Your task to perform on an android device: turn on improve location accuracy Image 0: 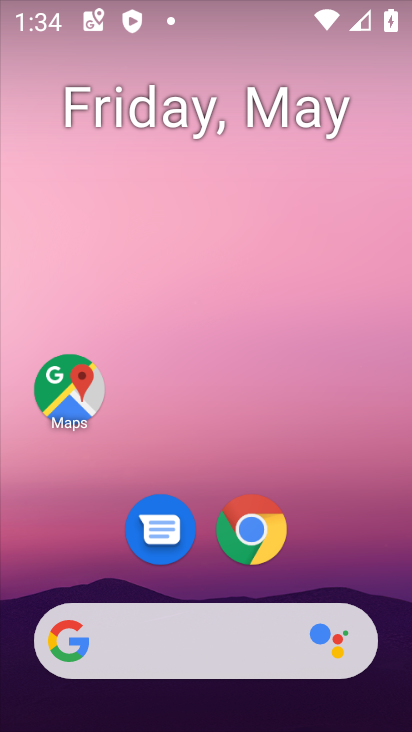
Step 0: drag from (363, 555) to (88, 35)
Your task to perform on an android device: turn on improve location accuracy Image 1: 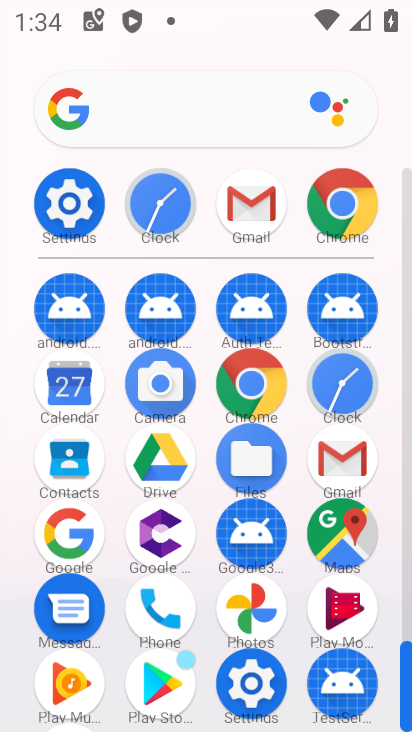
Step 1: click (61, 186)
Your task to perform on an android device: turn on improve location accuracy Image 2: 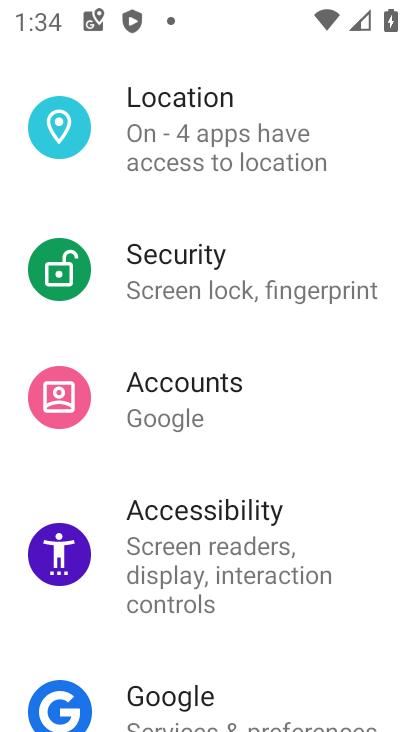
Step 2: drag from (247, 597) to (207, 356)
Your task to perform on an android device: turn on improve location accuracy Image 3: 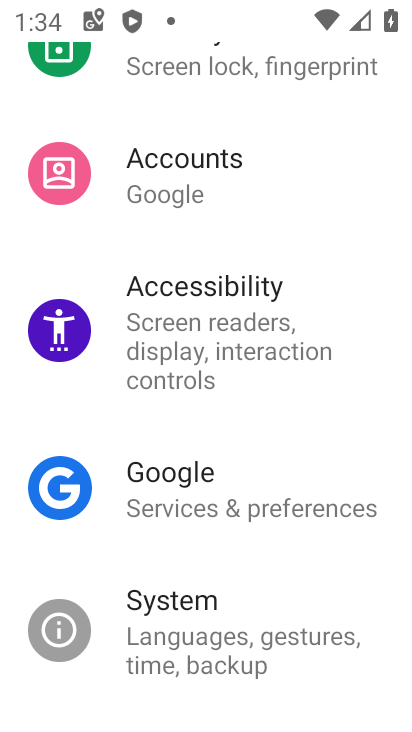
Step 3: drag from (220, 578) to (189, 265)
Your task to perform on an android device: turn on improve location accuracy Image 4: 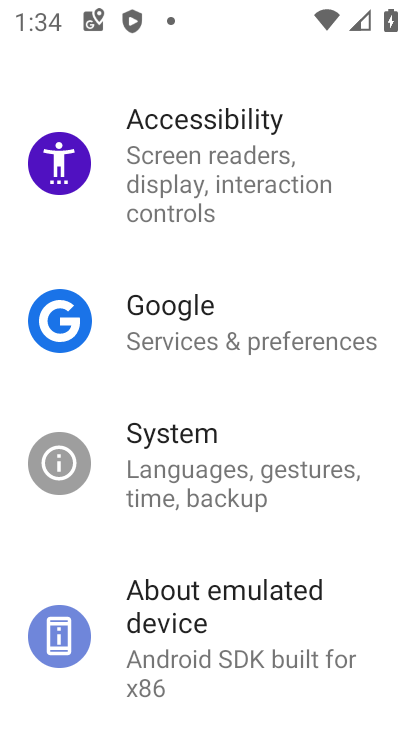
Step 4: drag from (189, 265) to (218, 728)
Your task to perform on an android device: turn on improve location accuracy Image 5: 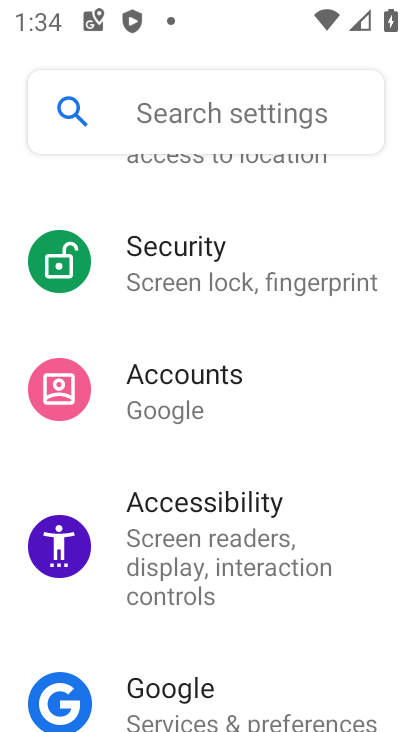
Step 5: drag from (192, 352) to (188, 728)
Your task to perform on an android device: turn on improve location accuracy Image 6: 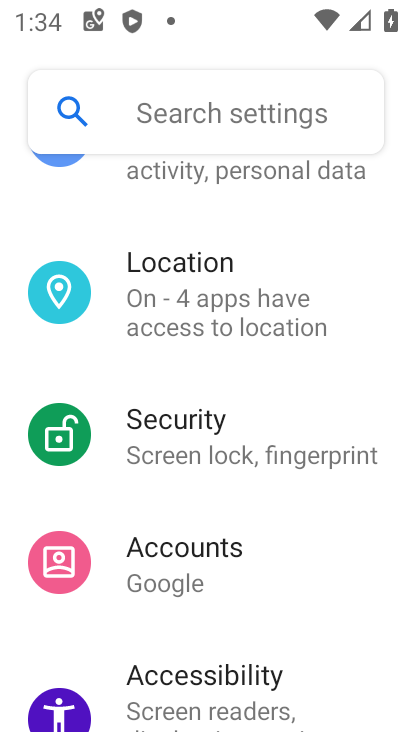
Step 6: click (217, 360)
Your task to perform on an android device: turn on improve location accuracy Image 7: 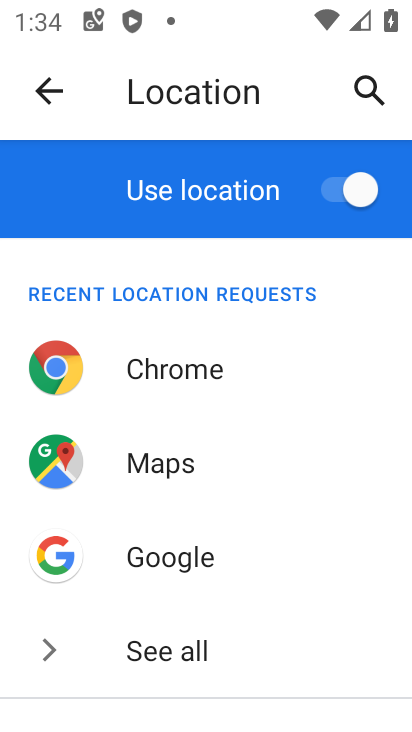
Step 7: drag from (170, 580) to (170, 234)
Your task to perform on an android device: turn on improve location accuracy Image 8: 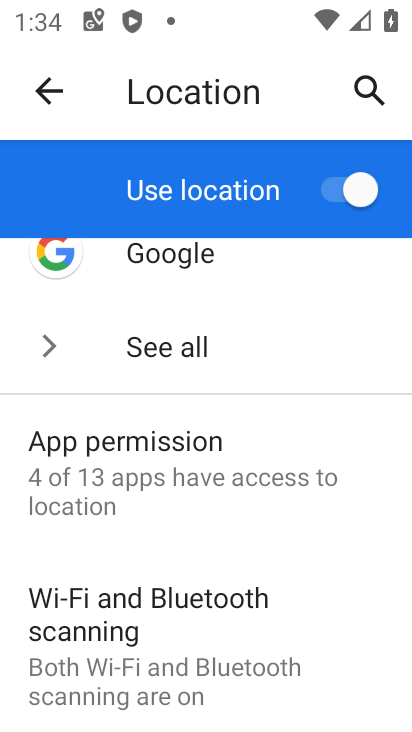
Step 8: drag from (205, 547) to (199, 307)
Your task to perform on an android device: turn on improve location accuracy Image 9: 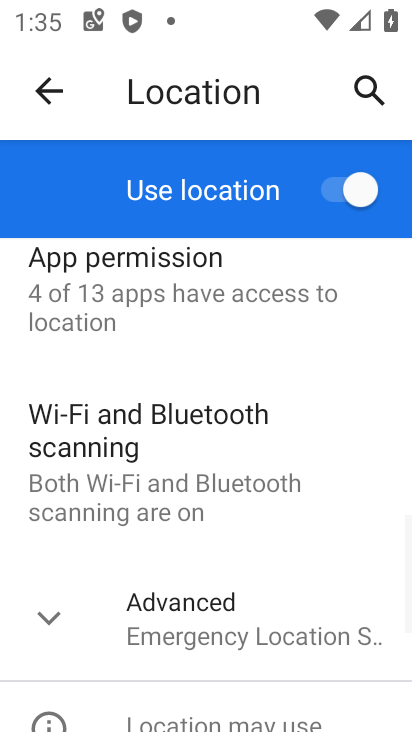
Step 9: click (199, 307)
Your task to perform on an android device: turn on improve location accuracy Image 10: 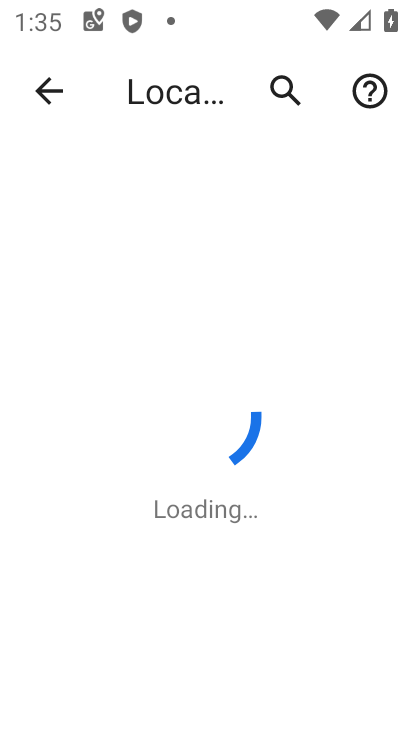
Step 10: click (287, 640)
Your task to perform on an android device: turn on improve location accuracy Image 11: 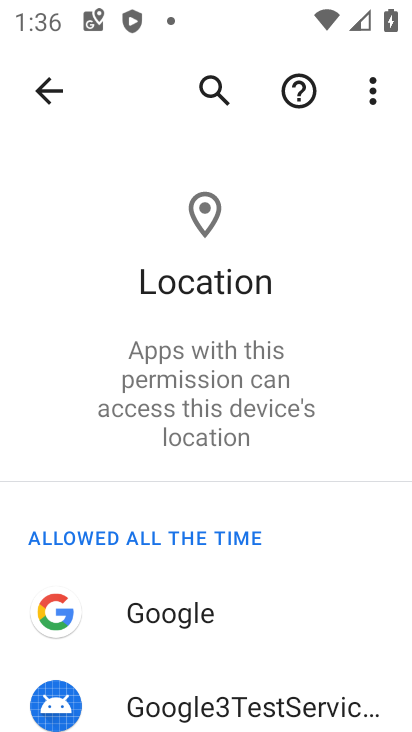
Step 11: drag from (254, 636) to (180, 110)
Your task to perform on an android device: turn on improve location accuracy Image 12: 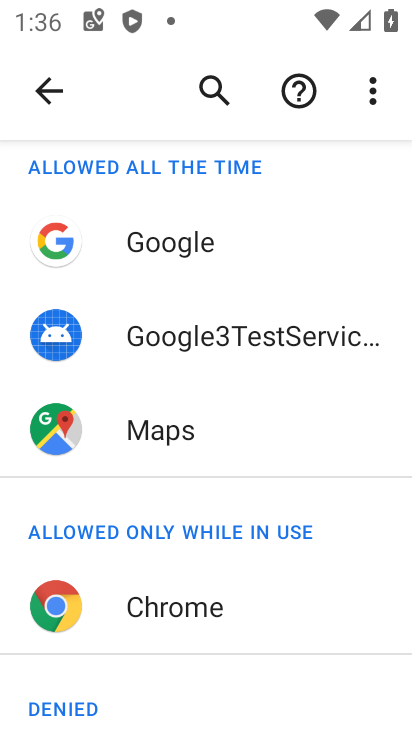
Step 12: click (60, 72)
Your task to perform on an android device: turn on improve location accuracy Image 13: 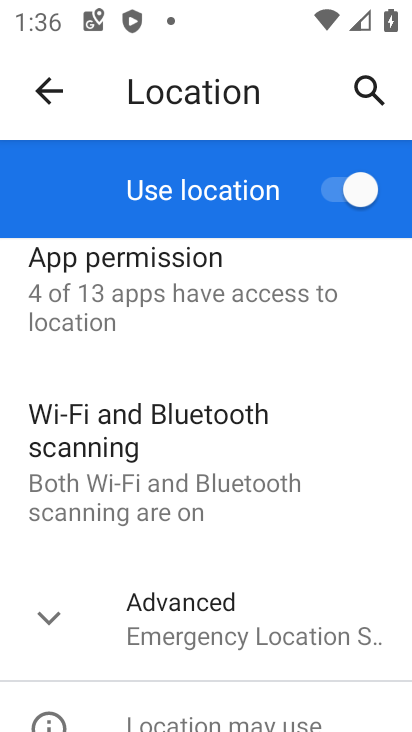
Step 13: drag from (239, 615) to (200, 272)
Your task to perform on an android device: turn on improve location accuracy Image 14: 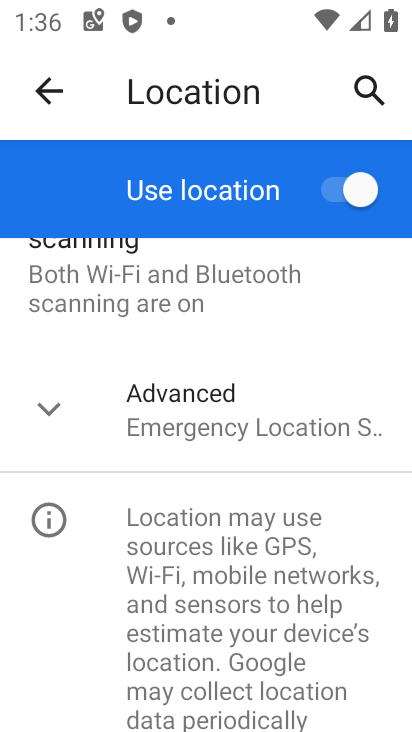
Step 14: click (215, 430)
Your task to perform on an android device: turn on improve location accuracy Image 15: 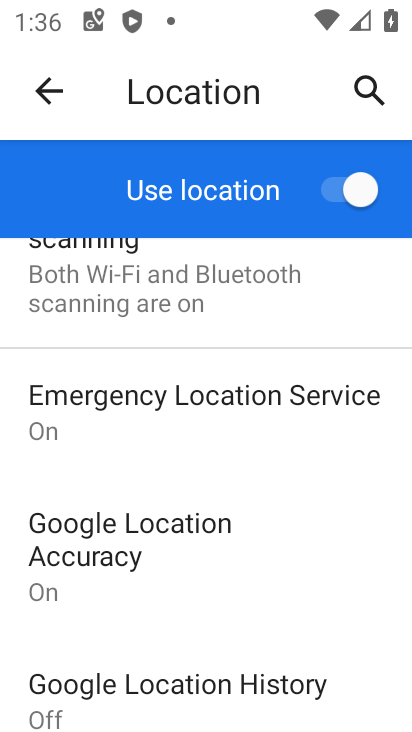
Step 15: drag from (223, 602) to (213, 385)
Your task to perform on an android device: turn on improve location accuracy Image 16: 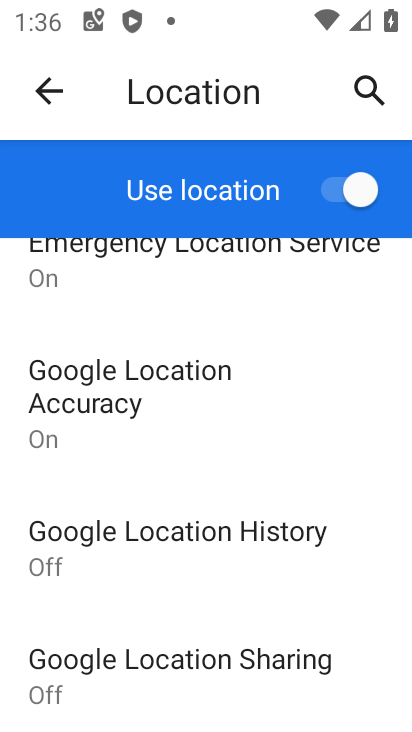
Step 16: click (146, 371)
Your task to perform on an android device: turn on improve location accuracy Image 17: 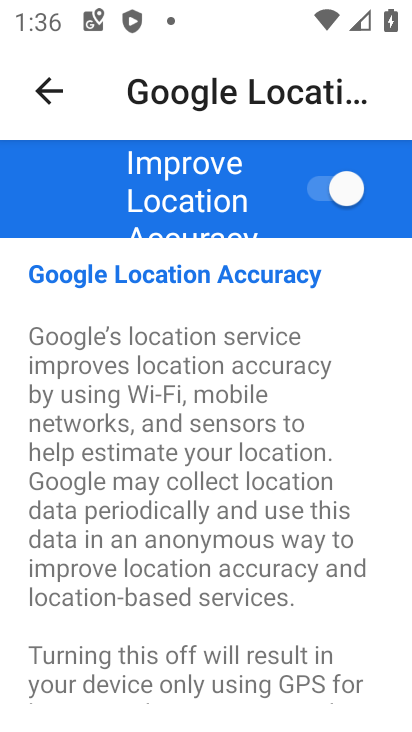
Step 17: task complete